Your task to perform on an android device: View the shopping cart on ebay. Image 0: 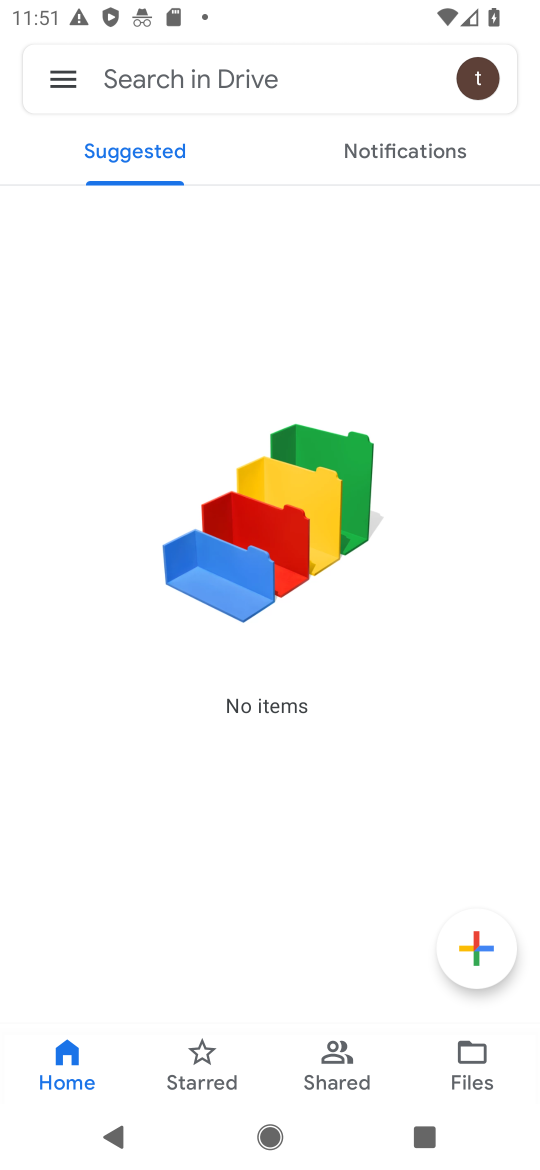
Step 0: press home button
Your task to perform on an android device: View the shopping cart on ebay. Image 1: 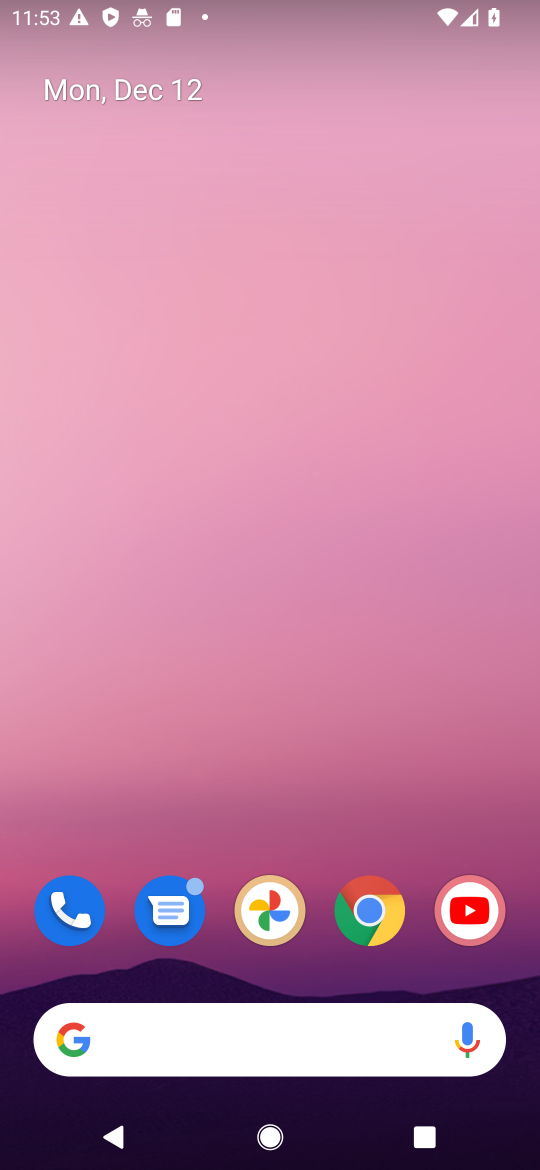
Step 1: click (358, 903)
Your task to perform on an android device: View the shopping cart on ebay. Image 2: 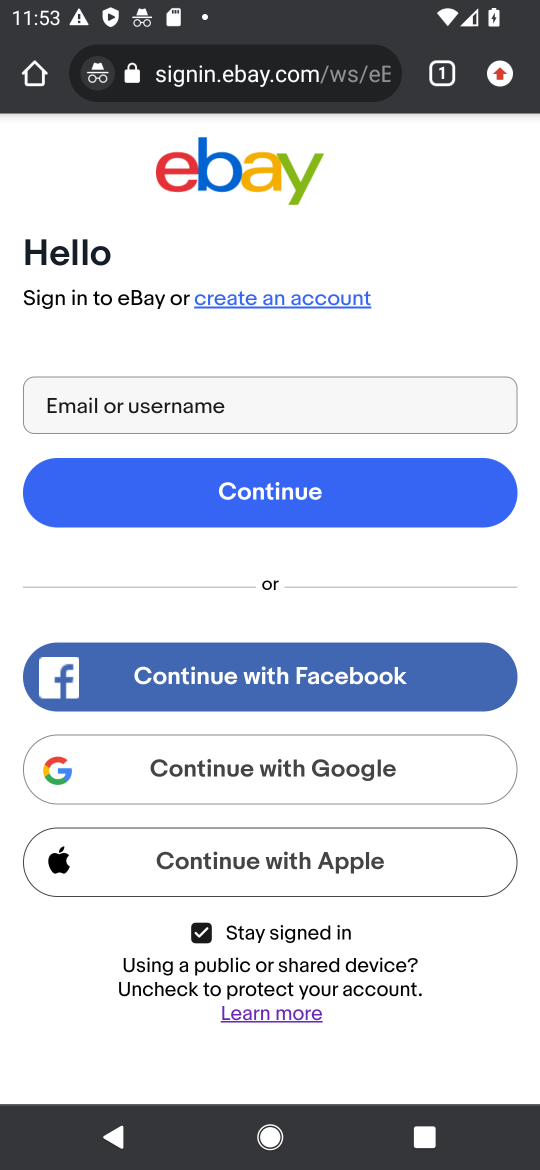
Step 2: click (202, 185)
Your task to perform on an android device: View the shopping cart on ebay. Image 3: 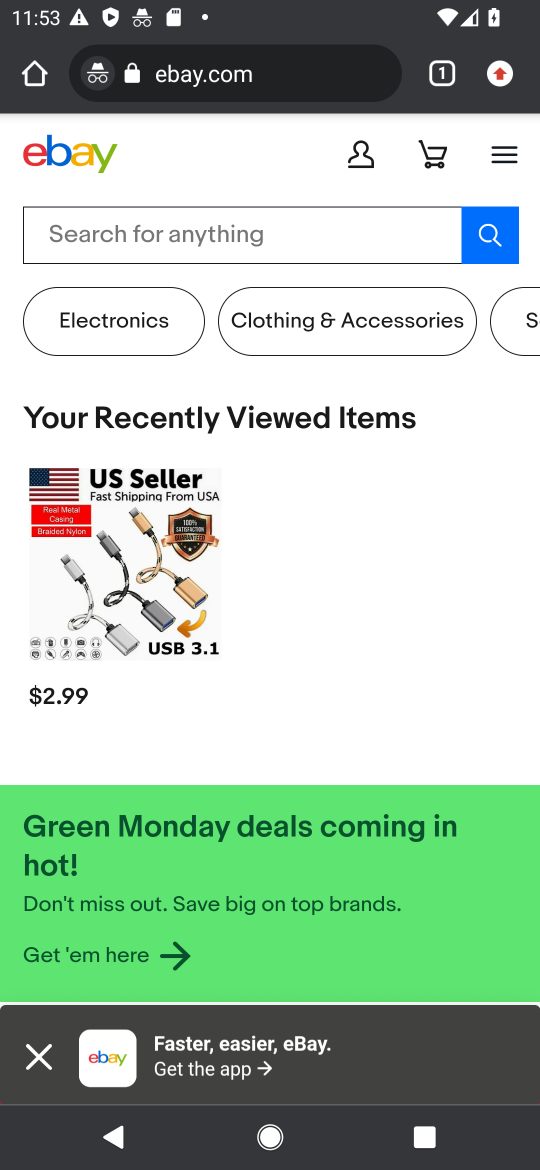
Step 3: click (438, 158)
Your task to perform on an android device: View the shopping cart on ebay. Image 4: 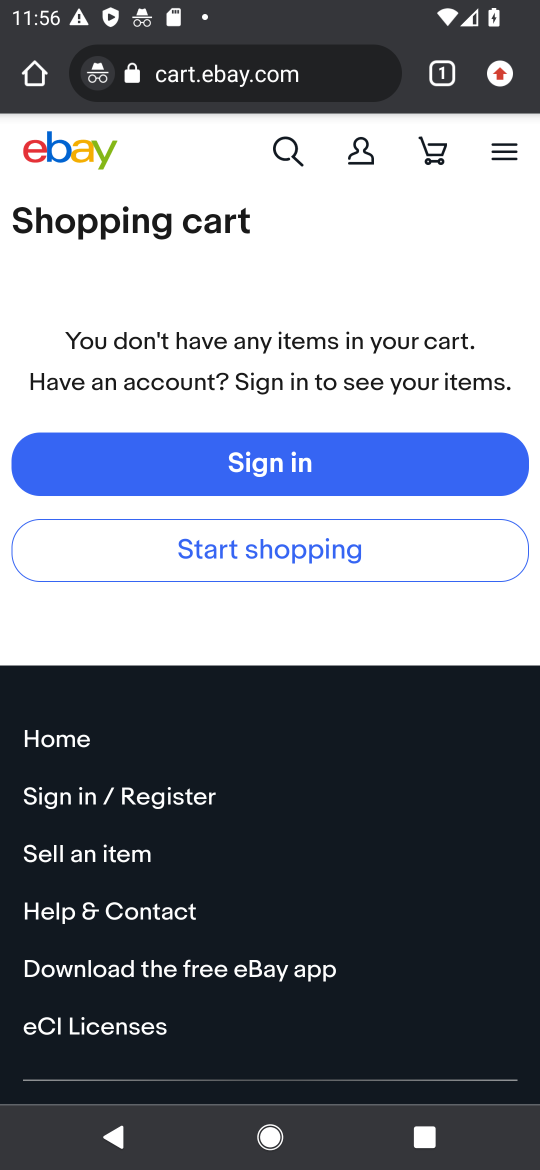
Step 4: task complete